Your task to perform on an android device: Go to Maps Image 0: 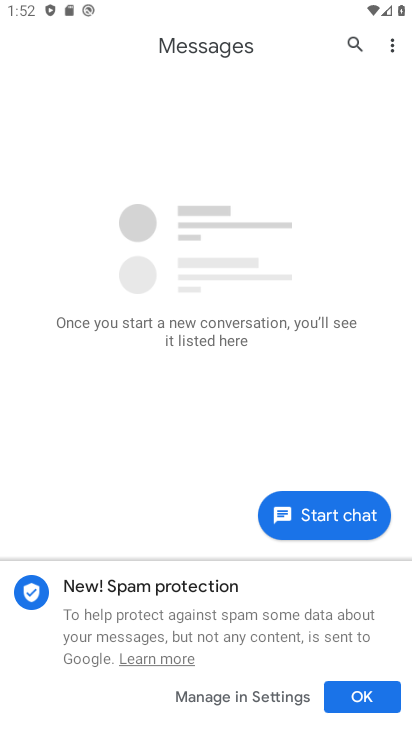
Step 0: press home button
Your task to perform on an android device: Go to Maps Image 1: 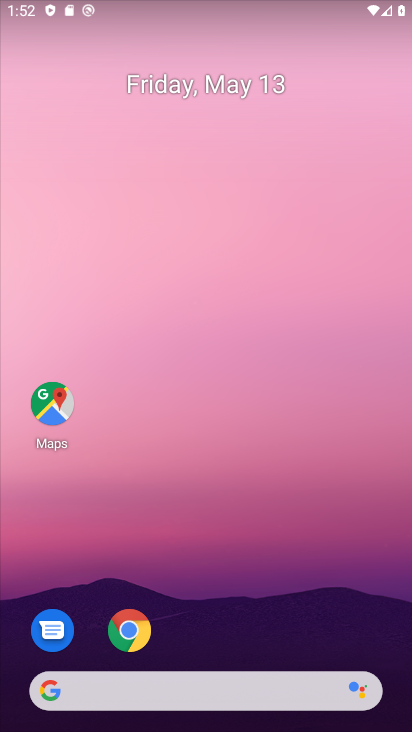
Step 1: click (43, 401)
Your task to perform on an android device: Go to Maps Image 2: 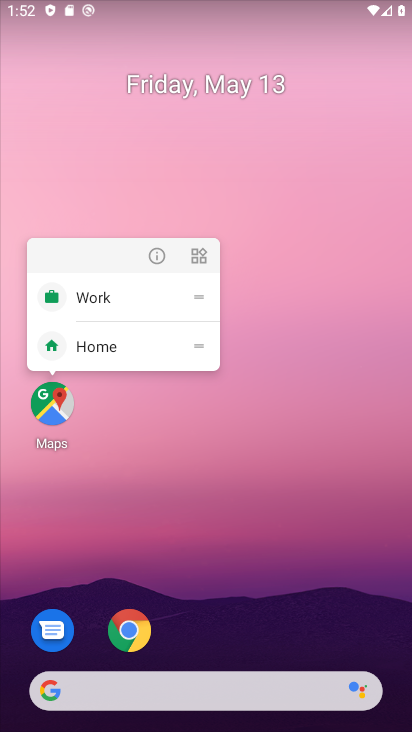
Step 2: click (44, 400)
Your task to perform on an android device: Go to Maps Image 3: 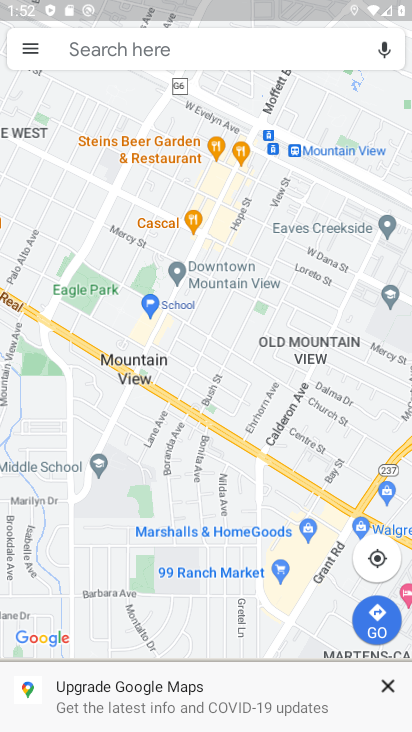
Step 3: task complete